Your task to perform on an android device: set default search engine in the chrome app Image 0: 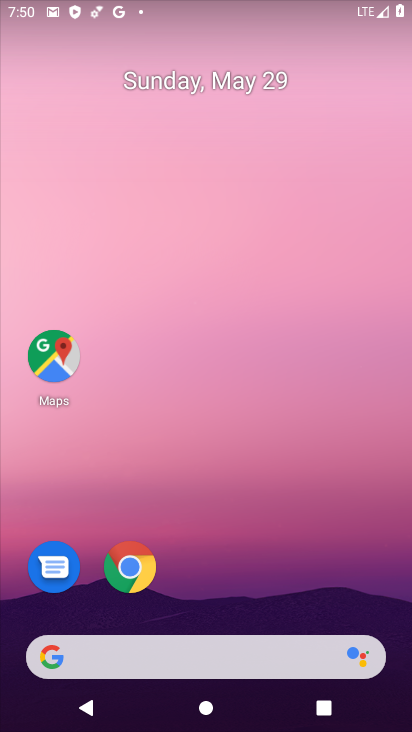
Step 0: drag from (268, 560) to (268, 241)
Your task to perform on an android device: set default search engine in the chrome app Image 1: 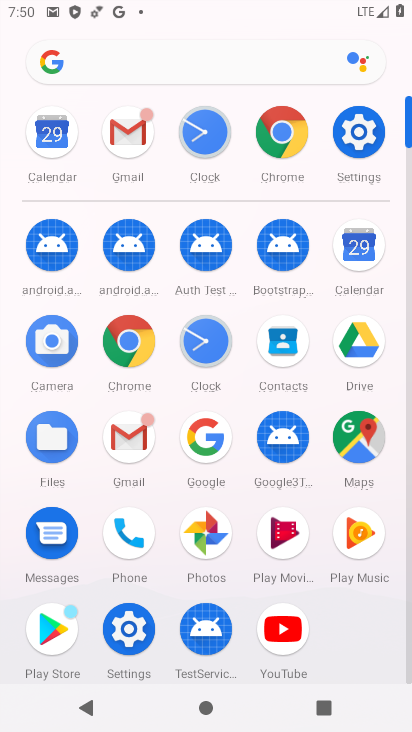
Step 1: click (131, 333)
Your task to perform on an android device: set default search engine in the chrome app Image 2: 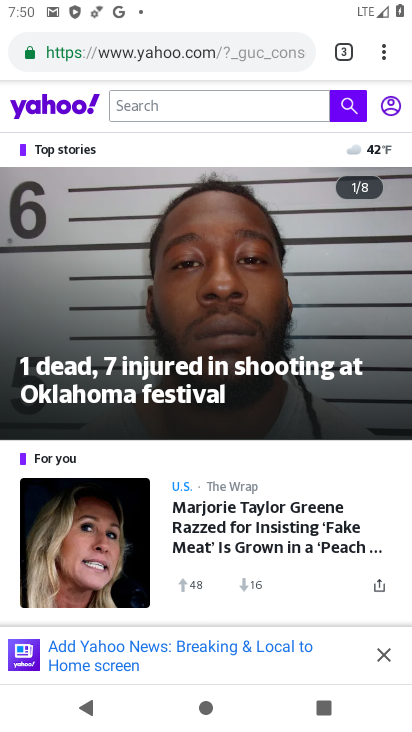
Step 2: click (388, 52)
Your task to perform on an android device: set default search engine in the chrome app Image 3: 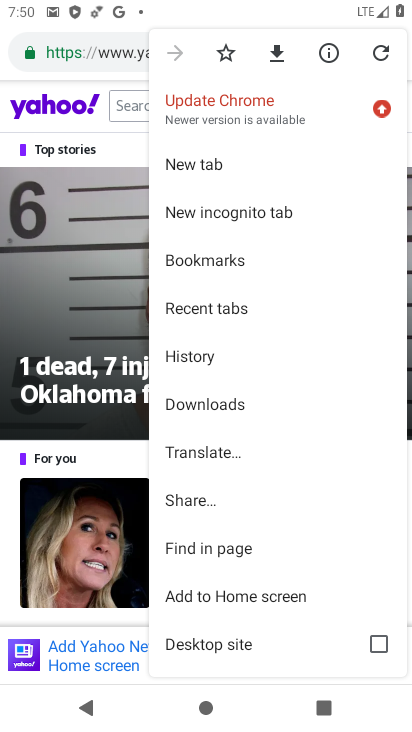
Step 3: drag from (246, 608) to (260, 313)
Your task to perform on an android device: set default search engine in the chrome app Image 4: 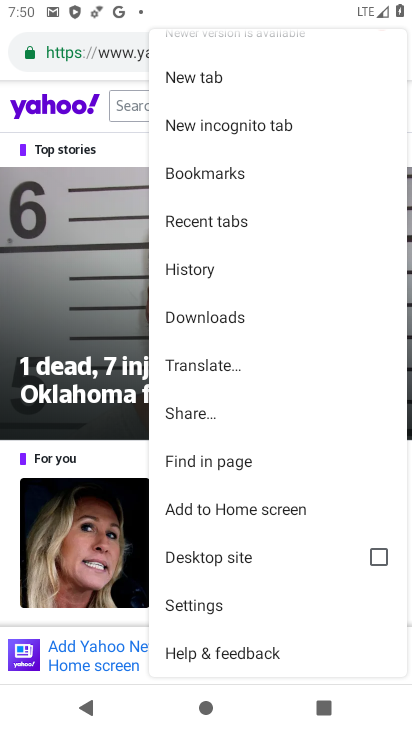
Step 4: click (216, 606)
Your task to perform on an android device: set default search engine in the chrome app Image 5: 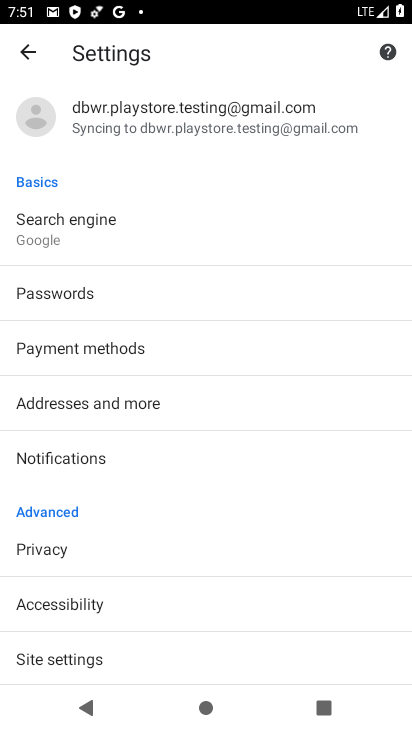
Step 5: task complete